Your task to perform on an android device: change keyboard looks Image 0: 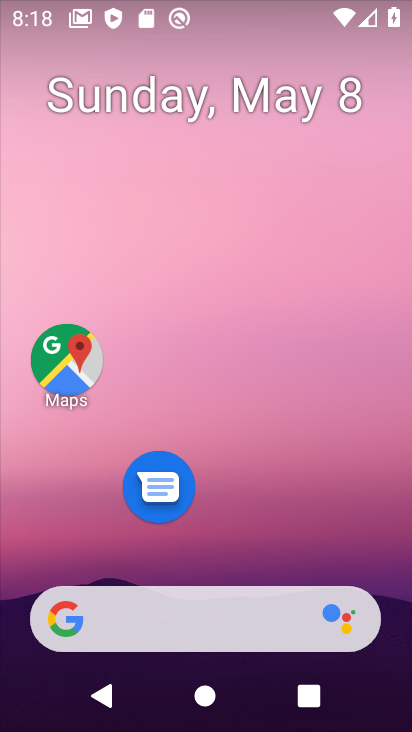
Step 0: drag from (269, 516) to (236, 43)
Your task to perform on an android device: change keyboard looks Image 1: 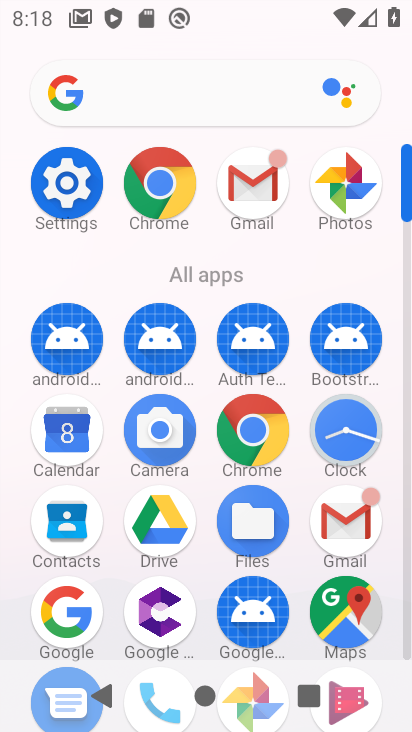
Step 1: click (87, 189)
Your task to perform on an android device: change keyboard looks Image 2: 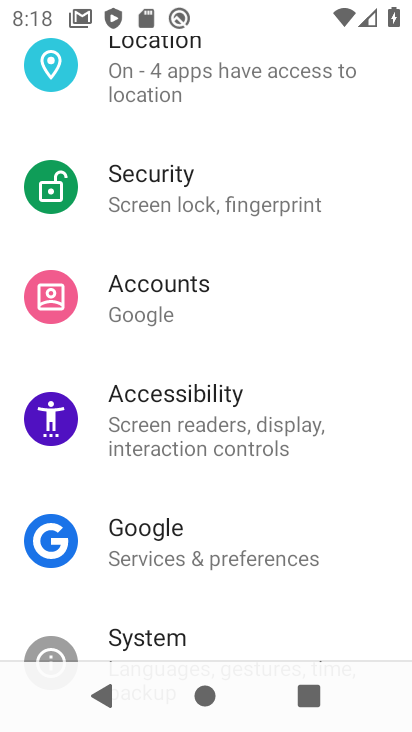
Step 2: drag from (223, 543) to (226, 268)
Your task to perform on an android device: change keyboard looks Image 3: 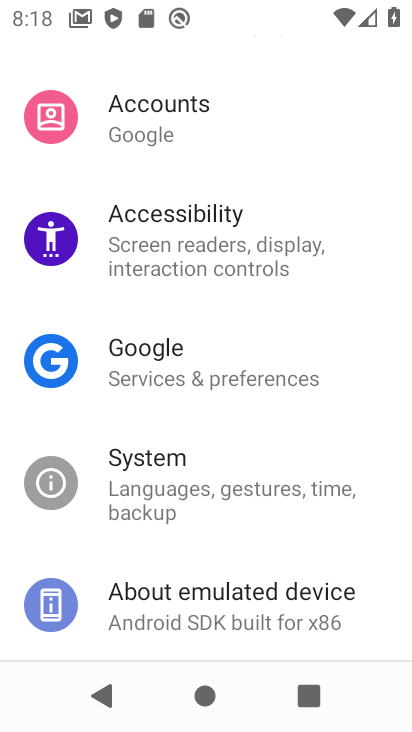
Step 3: click (206, 504)
Your task to perform on an android device: change keyboard looks Image 4: 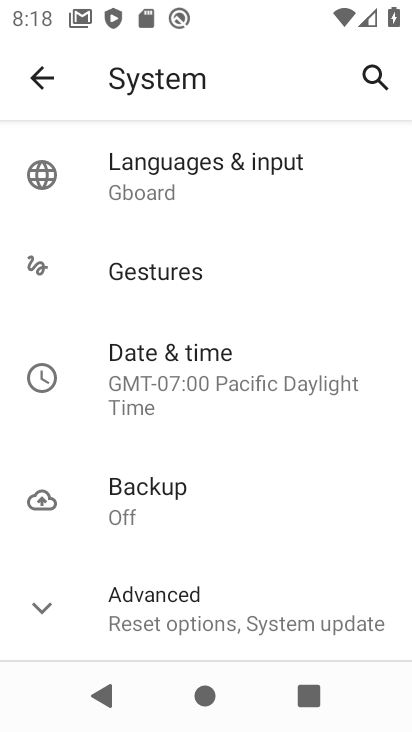
Step 4: click (231, 165)
Your task to perform on an android device: change keyboard looks Image 5: 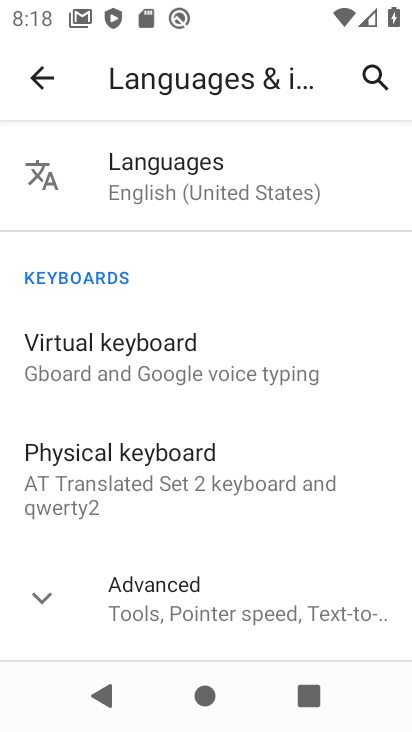
Step 5: click (165, 358)
Your task to perform on an android device: change keyboard looks Image 6: 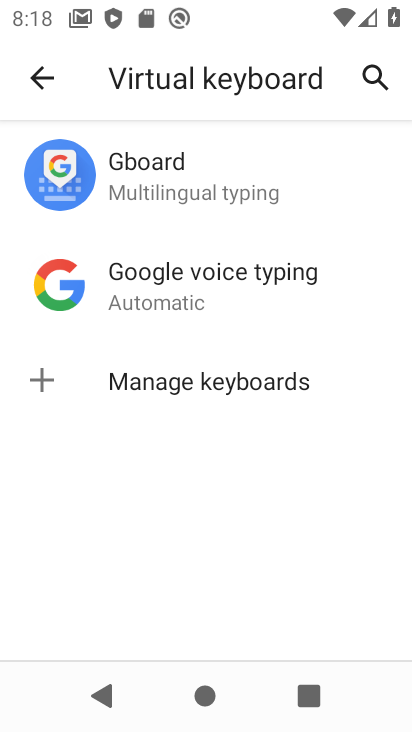
Step 6: click (220, 173)
Your task to perform on an android device: change keyboard looks Image 7: 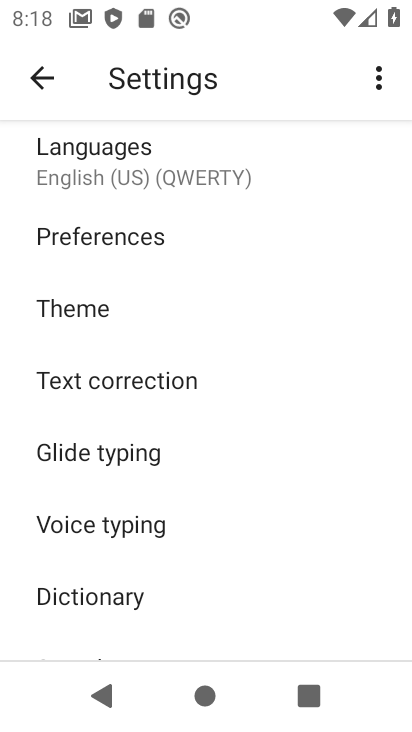
Step 7: click (77, 315)
Your task to perform on an android device: change keyboard looks Image 8: 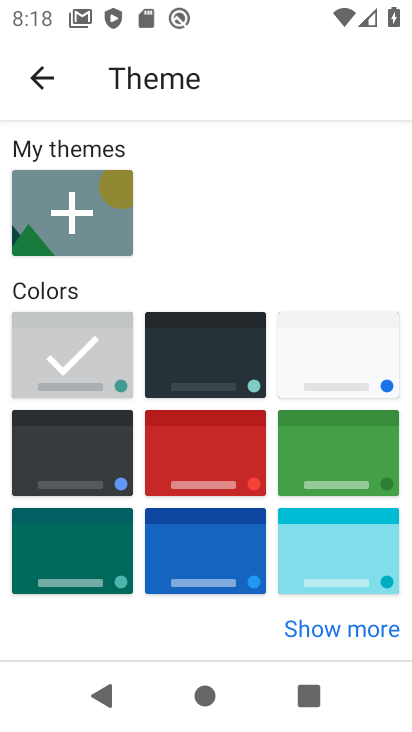
Step 8: click (237, 344)
Your task to perform on an android device: change keyboard looks Image 9: 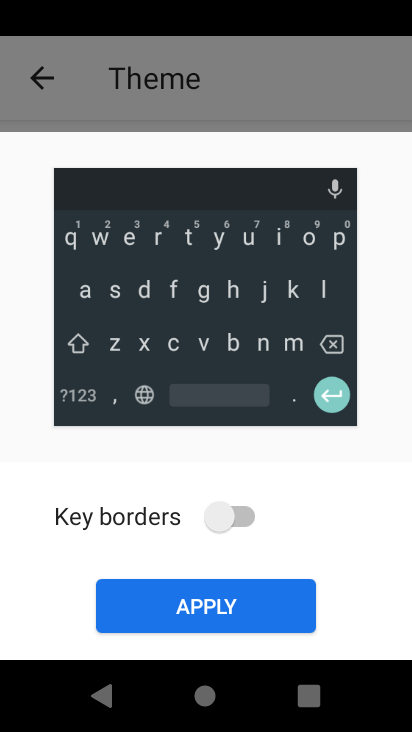
Step 9: task complete